Your task to perform on an android device: Open Youtube and go to the subscriptions tab Image 0: 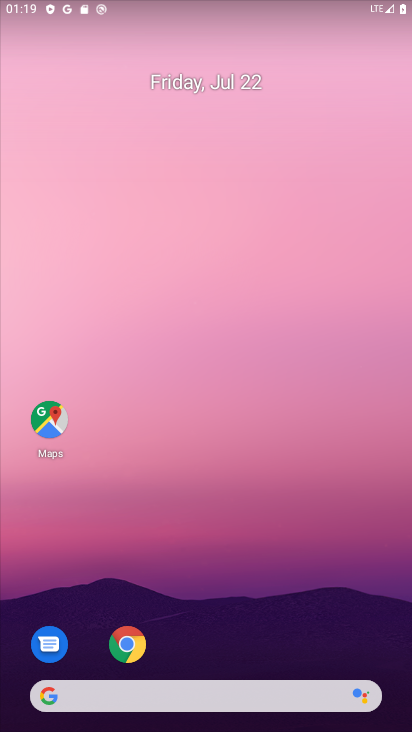
Step 0: drag from (202, 638) to (126, 103)
Your task to perform on an android device: Open Youtube and go to the subscriptions tab Image 1: 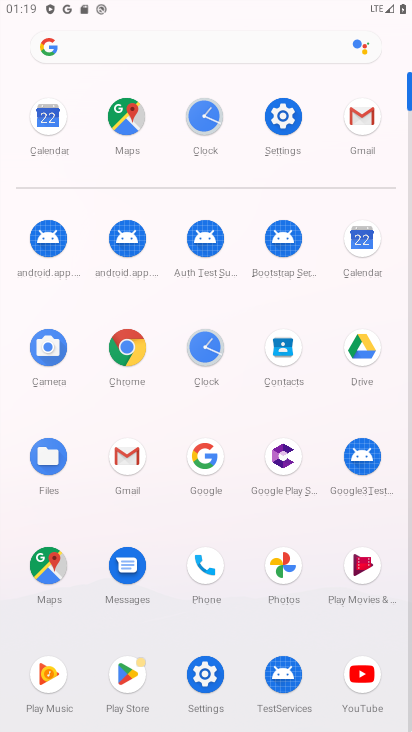
Step 1: click (355, 659)
Your task to perform on an android device: Open Youtube and go to the subscriptions tab Image 2: 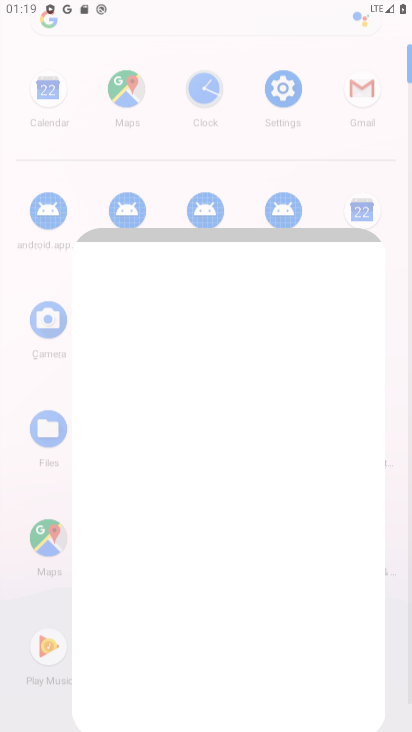
Step 2: click (355, 659)
Your task to perform on an android device: Open Youtube and go to the subscriptions tab Image 3: 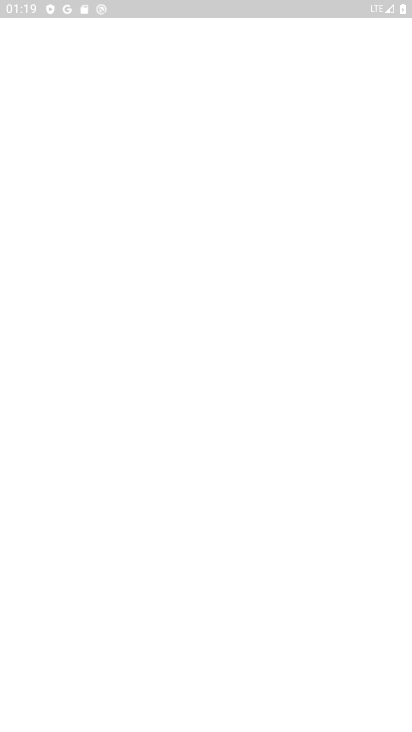
Step 3: click (355, 659)
Your task to perform on an android device: Open Youtube and go to the subscriptions tab Image 4: 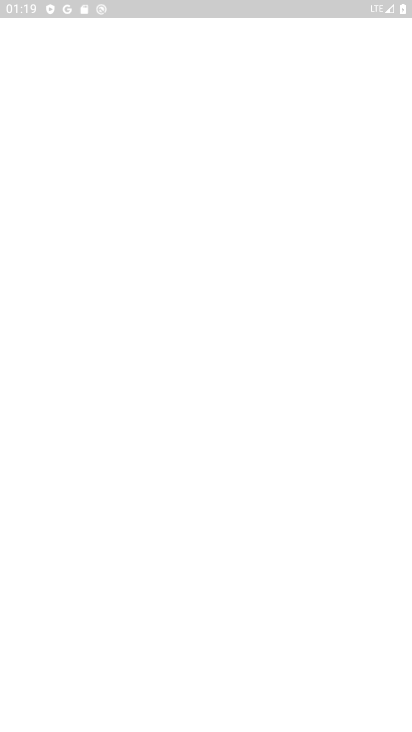
Step 4: click (358, 671)
Your task to perform on an android device: Open Youtube and go to the subscriptions tab Image 5: 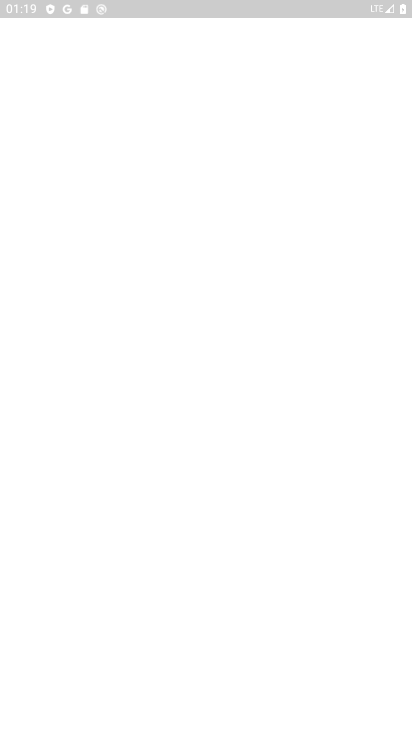
Step 5: click (358, 671)
Your task to perform on an android device: Open Youtube and go to the subscriptions tab Image 6: 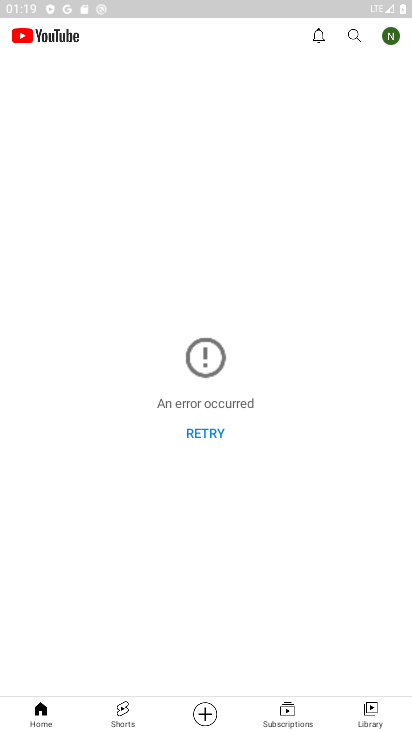
Step 6: click (272, 712)
Your task to perform on an android device: Open Youtube and go to the subscriptions tab Image 7: 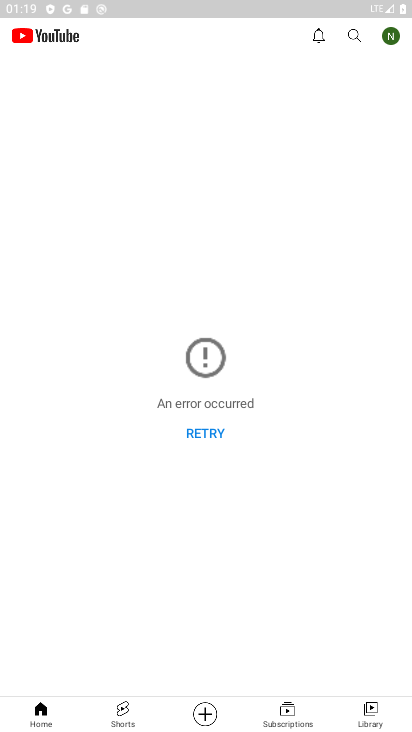
Step 7: click (272, 712)
Your task to perform on an android device: Open Youtube and go to the subscriptions tab Image 8: 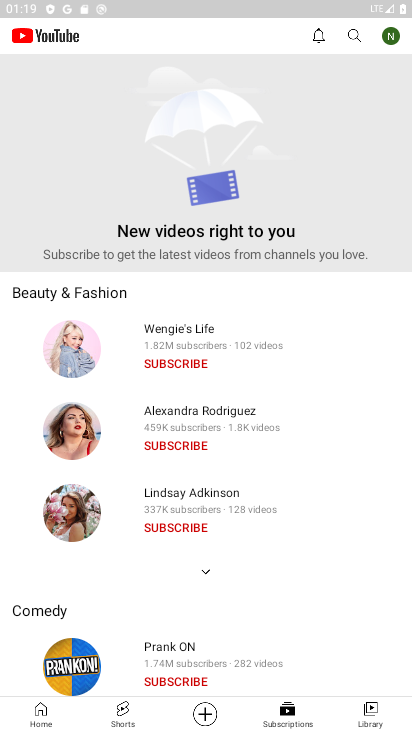
Step 8: task complete